Your task to perform on an android device: check android version Image 0: 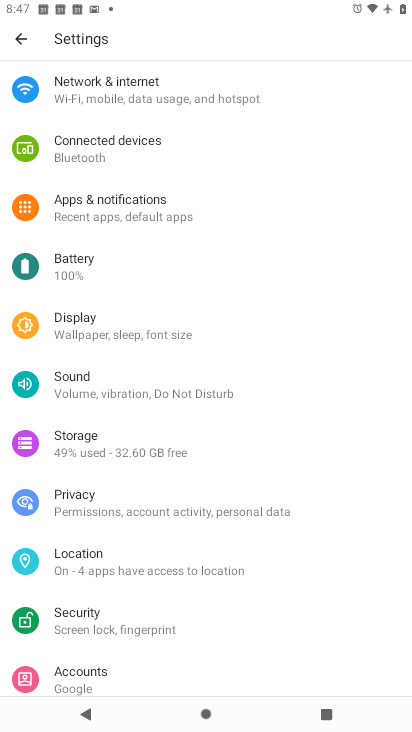
Step 0: press home button
Your task to perform on an android device: check android version Image 1: 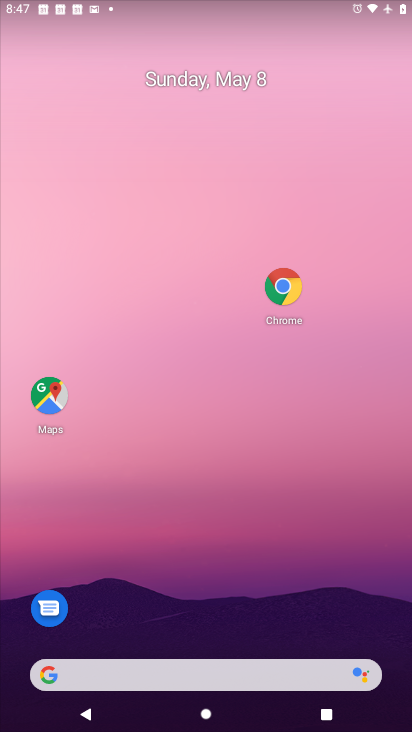
Step 1: drag from (144, 665) to (334, 89)
Your task to perform on an android device: check android version Image 2: 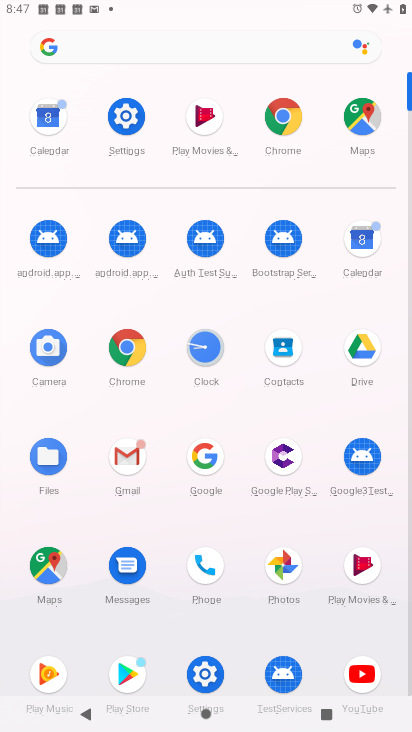
Step 2: click (123, 120)
Your task to perform on an android device: check android version Image 3: 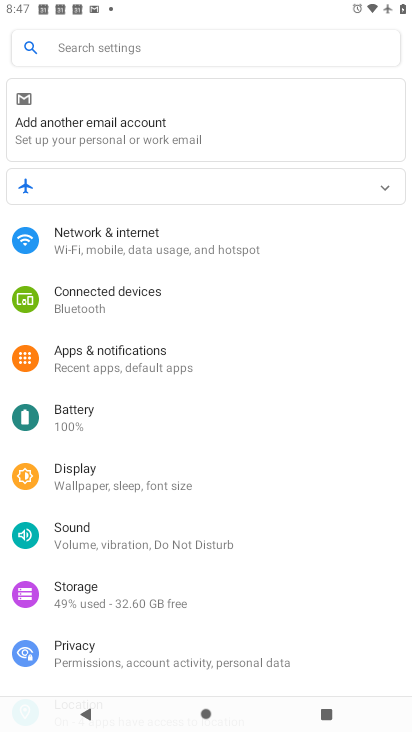
Step 3: drag from (178, 662) to (408, 94)
Your task to perform on an android device: check android version Image 4: 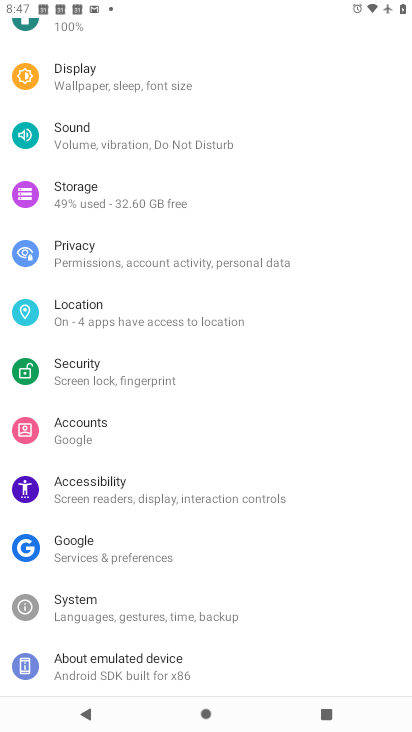
Step 4: click (114, 656)
Your task to perform on an android device: check android version Image 5: 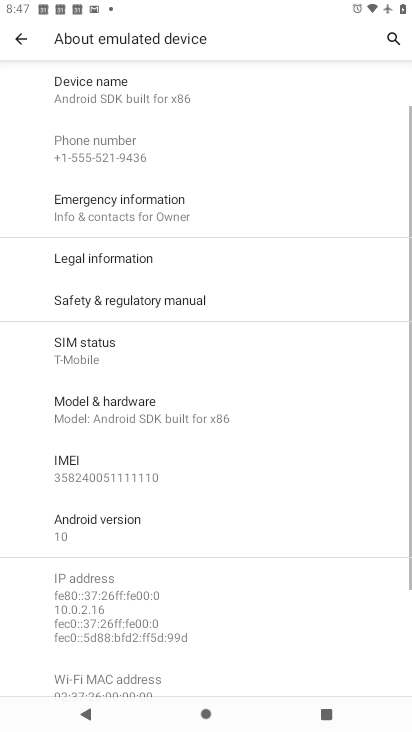
Step 5: drag from (114, 669) to (237, 421)
Your task to perform on an android device: check android version Image 6: 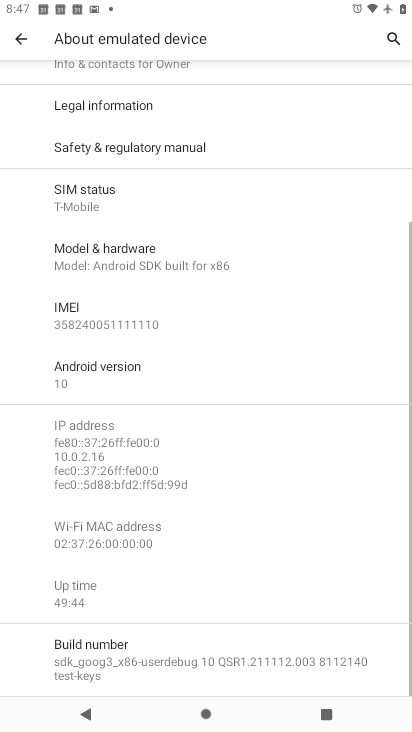
Step 6: click (103, 363)
Your task to perform on an android device: check android version Image 7: 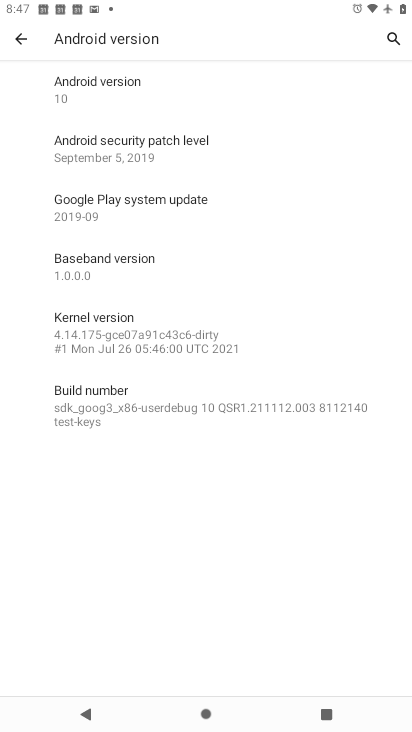
Step 7: task complete